Your task to perform on an android device: Go to wifi settings Image 0: 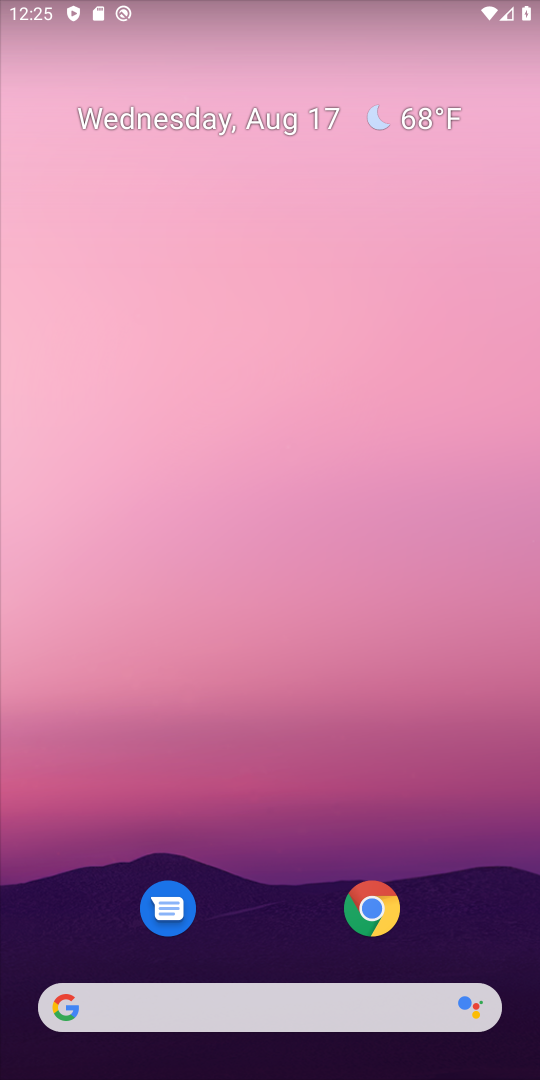
Step 0: drag from (285, 905) to (278, 227)
Your task to perform on an android device: Go to wifi settings Image 1: 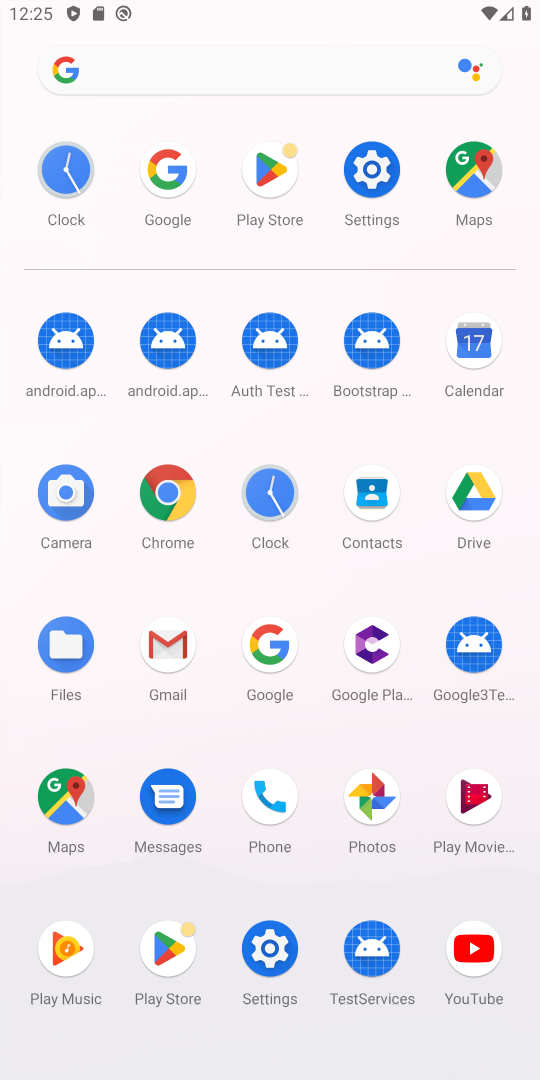
Step 1: click (392, 177)
Your task to perform on an android device: Go to wifi settings Image 2: 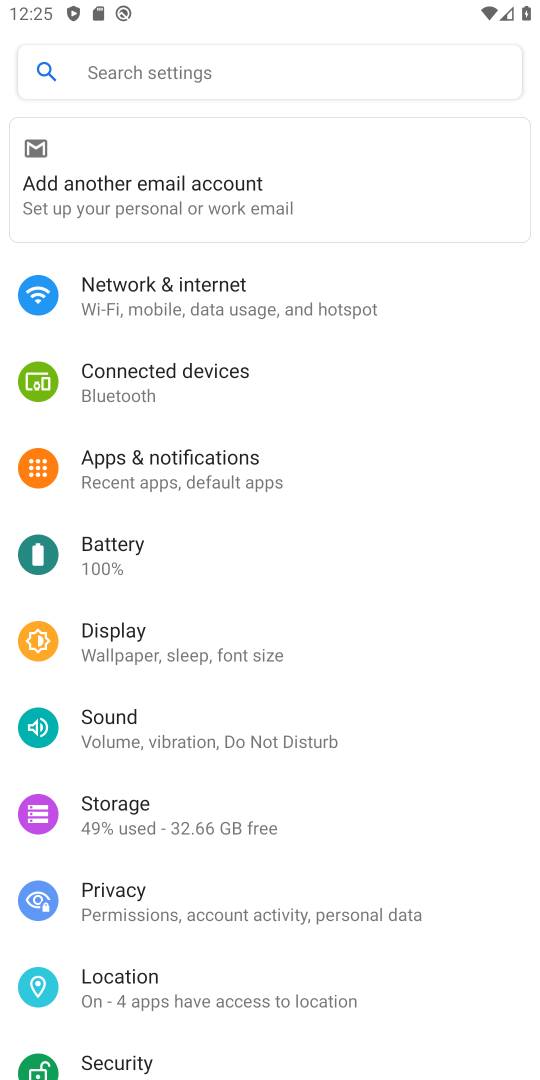
Step 2: click (186, 294)
Your task to perform on an android device: Go to wifi settings Image 3: 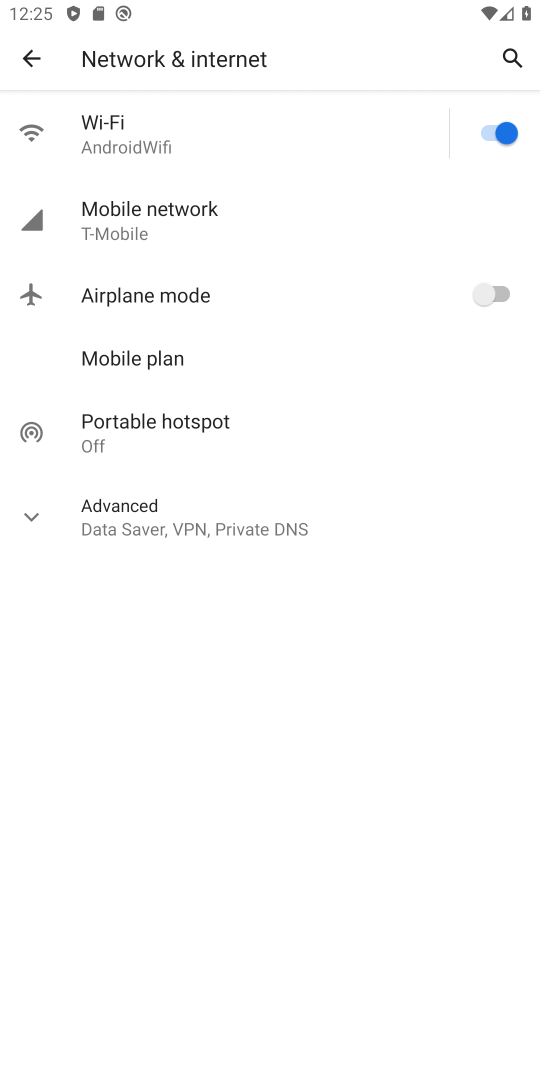
Step 3: click (155, 128)
Your task to perform on an android device: Go to wifi settings Image 4: 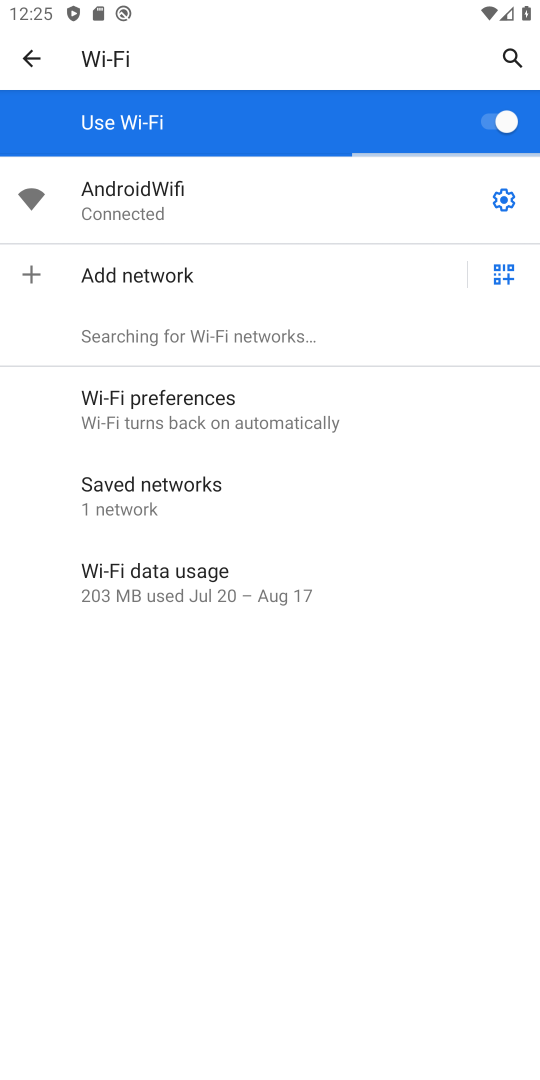
Step 4: task complete